Your task to perform on an android device: turn pop-ups off in chrome Image 0: 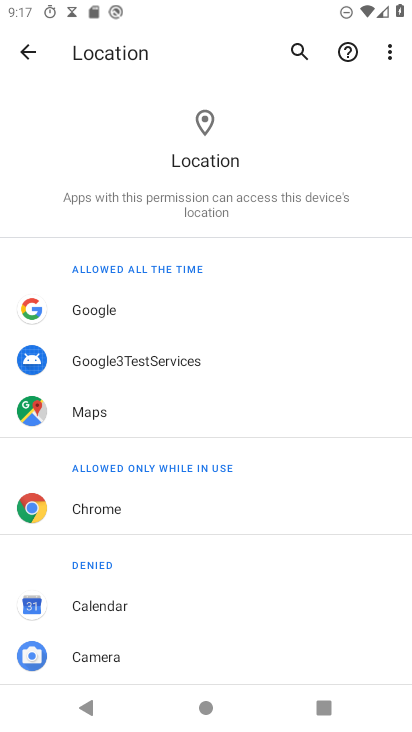
Step 0: press home button
Your task to perform on an android device: turn pop-ups off in chrome Image 1: 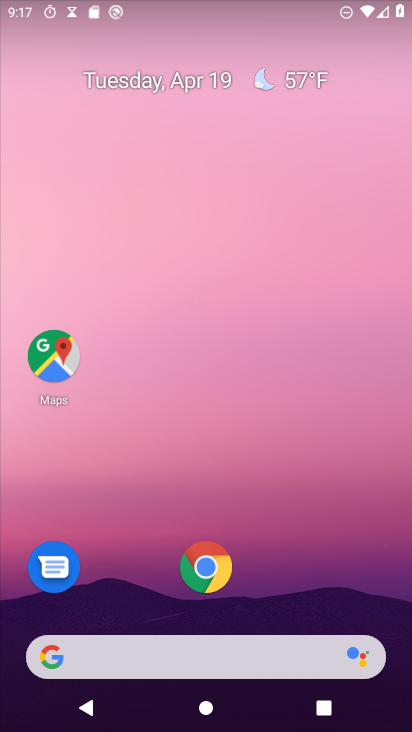
Step 1: drag from (343, 522) to (349, 84)
Your task to perform on an android device: turn pop-ups off in chrome Image 2: 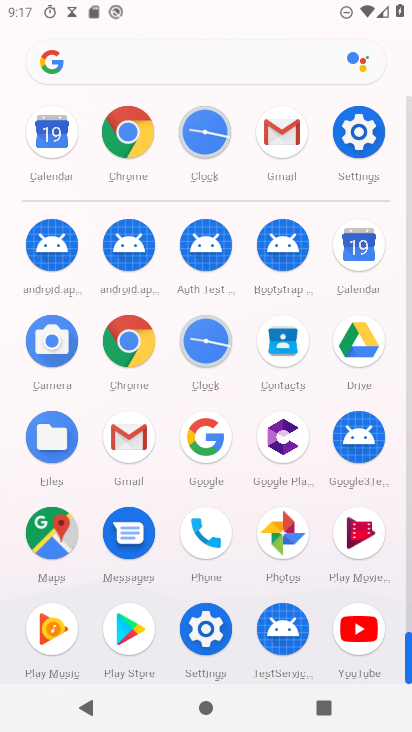
Step 2: click (126, 126)
Your task to perform on an android device: turn pop-ups off in chrome Image 3: 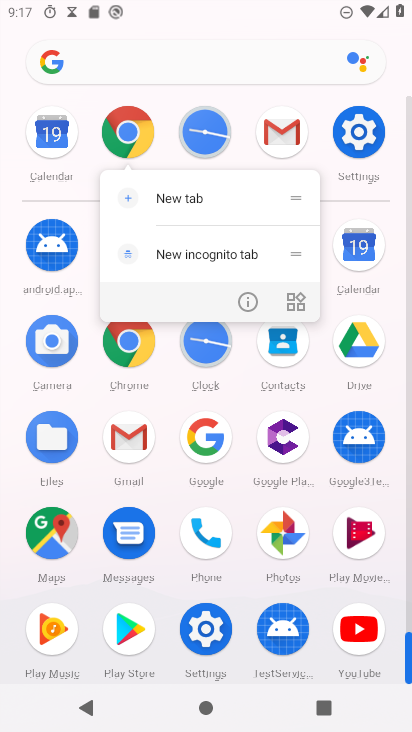
Step 3: click (126, 125)
Your task to perform on an android device: turn pop-ups off in chrome Image 4: 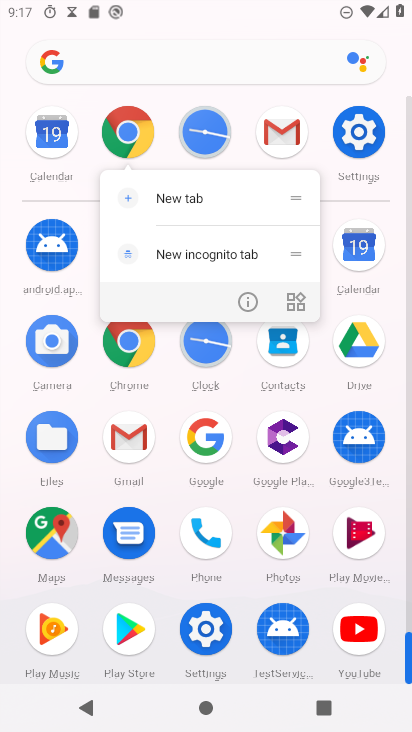
Step 4: click (126, 125)
Your task to perform on an android device: turn pop-ups off in chrome Image 5: 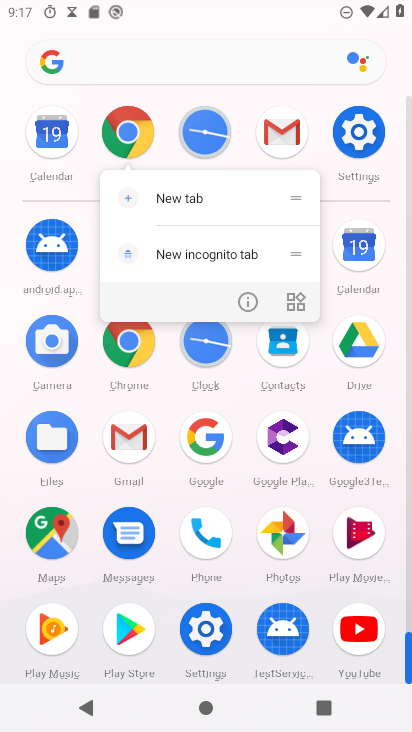
Step 5: click (126, 125)
Your task to perform on an android device: turn pop-ups off in chrome Image 6: 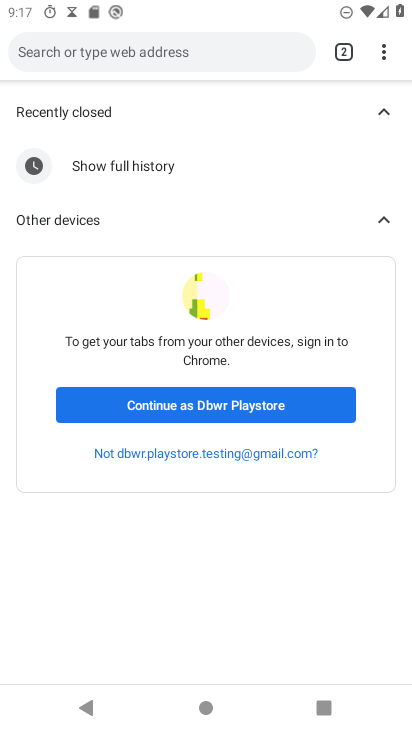
Step 6: drag from (381, 48) to (168, 503)
Your task to perform on an android device: turn pop-ups off in chrome Image 7: 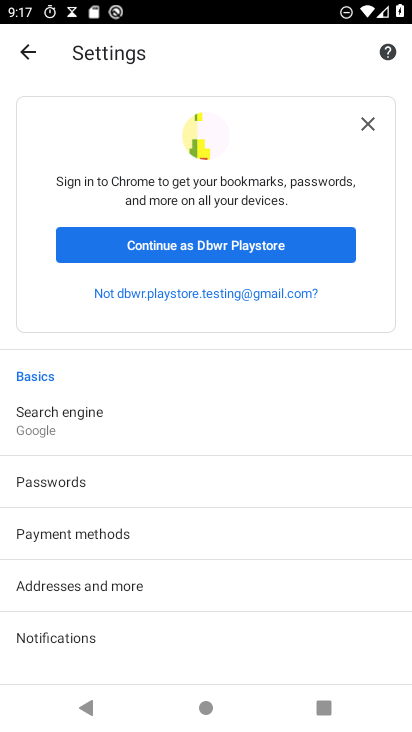
Step 7: drag from (161, 623) to (174, 320)
Your task to perform on an android device: turn pop-ups off in chrome Image 8: 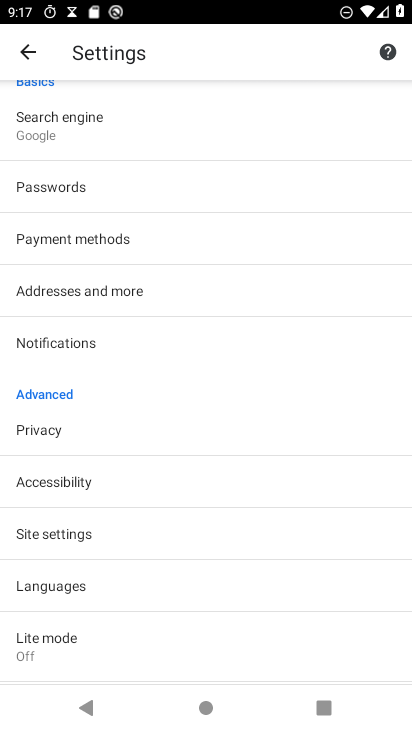
Step 8: click (61, 543)
Your task to perform on an android device: turn pop-ups off in chrome Image 9: 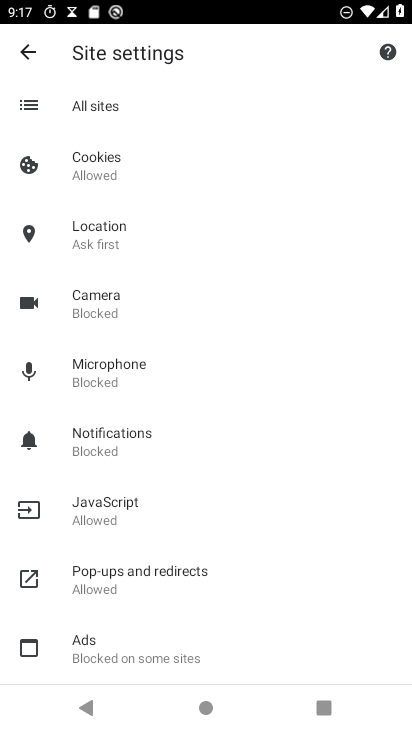
Step 9: click (100, 581)
Your task to perform on an android device: turn pop-ups off in chrome Image 10: 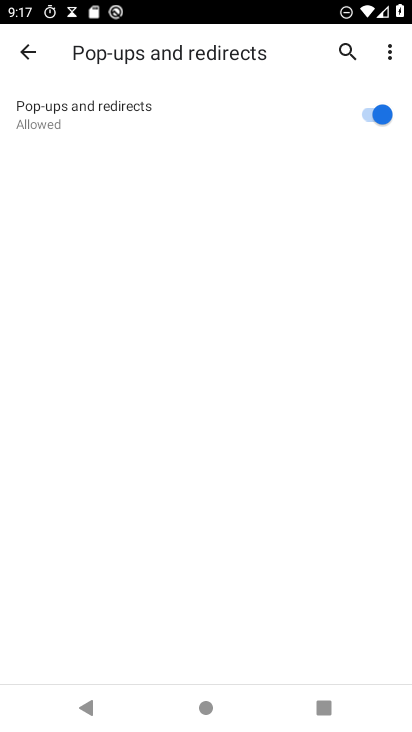
Step 10: click (370, 115)
Your task to perform on an android device: turn pop-ups off in chrome Image 11: 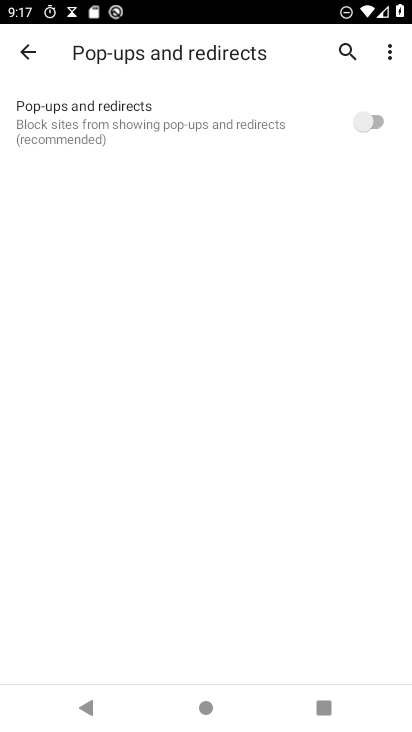
Step 11: task complete